Your task to perform on an android device: remove spam from my inbox in the gmail app Image 0: 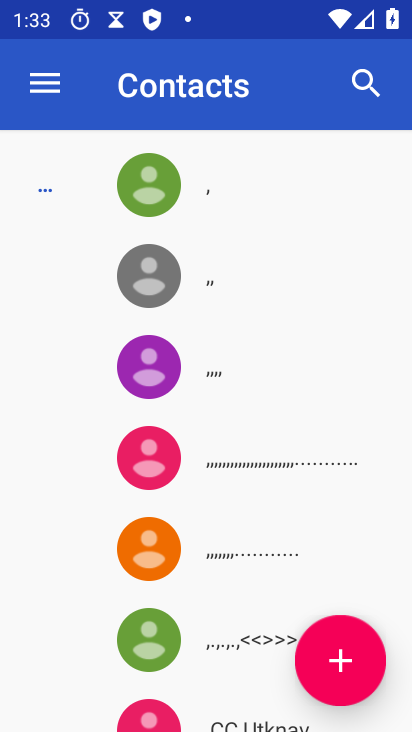
Step 0: press home button
Your task to perform on an android device: remove spam from my inbox in the gmail app Image 1: 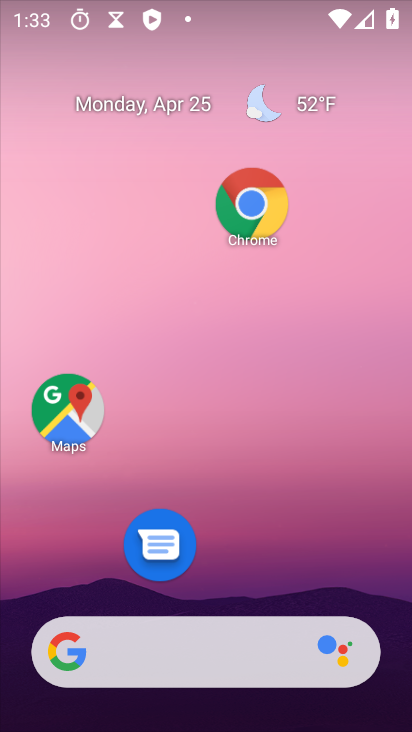
Step 1: drag from (244, 695) to (336, 347)
Your task to perform on an android device: remove spam from my inbox in the gmail app Image 2: 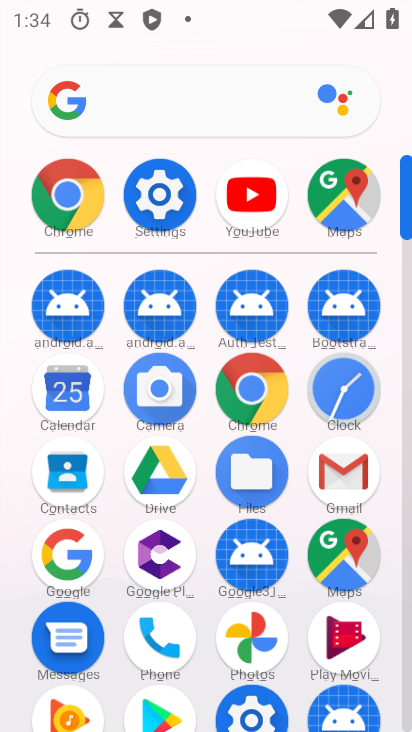
Step 2: click (343, 491)
Your task to perform on an android device: remove spam from my inbox in the gmail app Image 3: 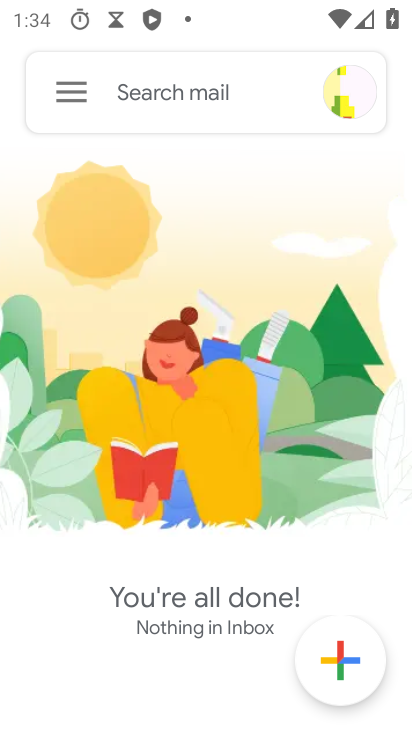
Step 3: click (67, 81)
Your task to perform on an android device: remove spam from my inbox in the gmail app Image 4: 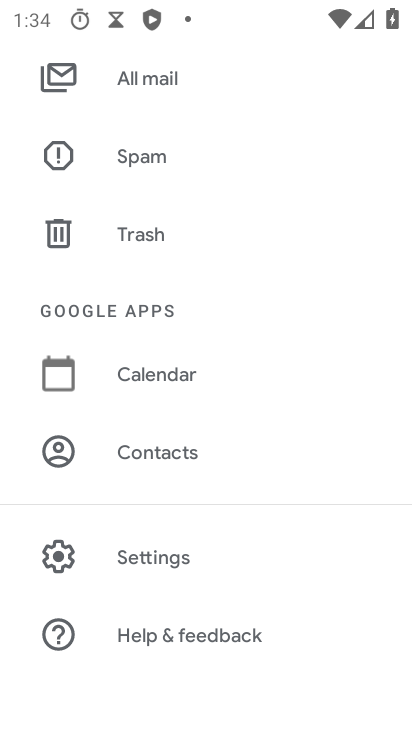
Step 4: click (160, 152)
Your task to perform on an android device: remove spam from my inbox in the gmail app Image 5: 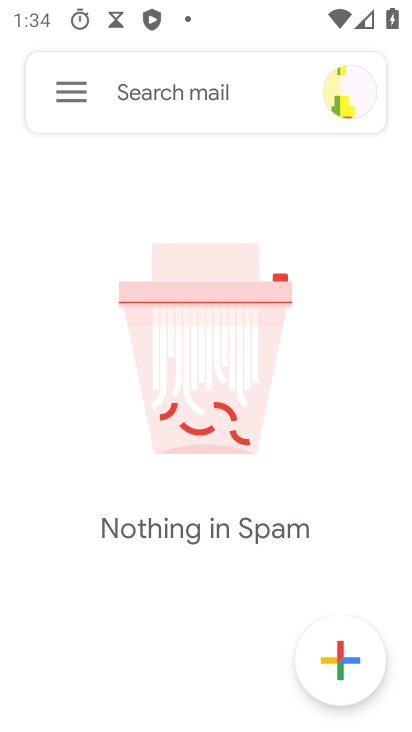
Step 5: task complete